Your task to perform on an android device: turn on priority inbox in the gmail app Image 0: 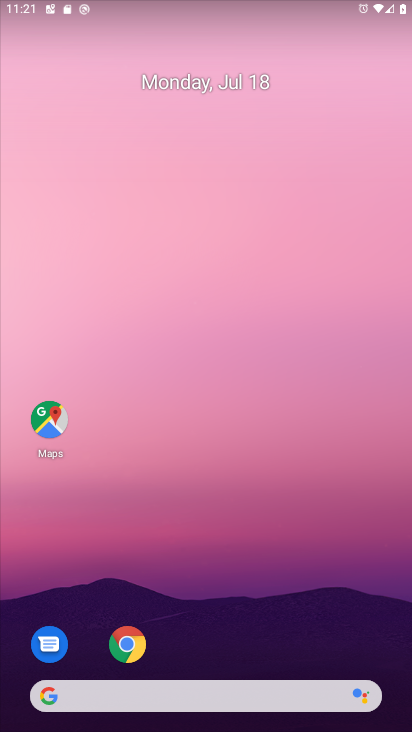
Step 0: drag from (217, 664) to (222, 105)
Your task to perform on an android device: turn on priority inbox in the gmail app Image 1: 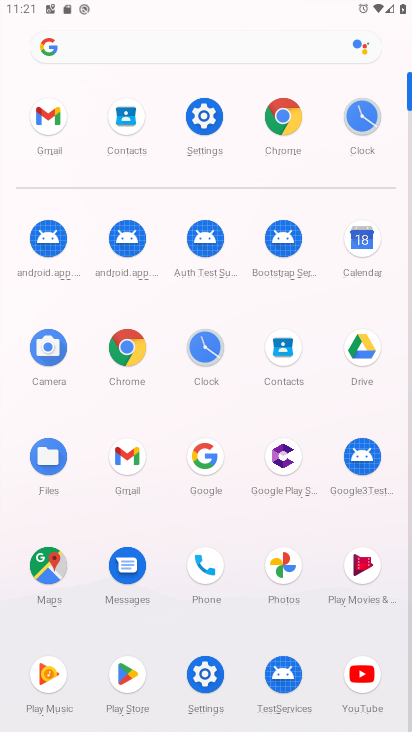
Step 1: click (61, 151)
Your task to perform on an android device: turn on priority inbox in the gmail app Image 2: 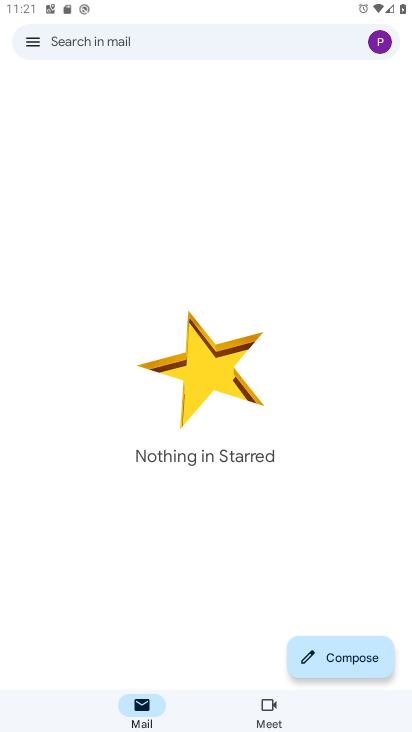
Step 2: task complete